Your task to perform on an android device: delete browsing data in the chrome app Image 0: 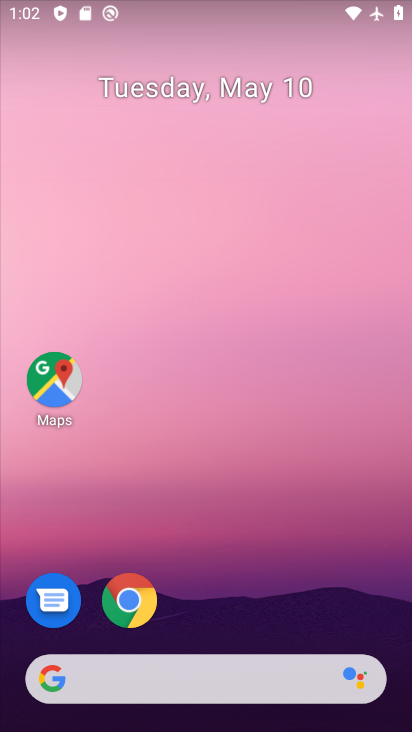
Step 0: click (123, 621)
Your task to perform on an android device: delete browsing data in the chrome app Image 1: 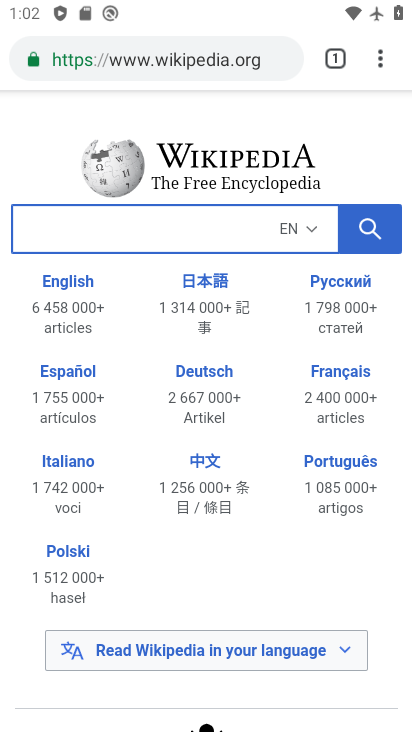
Step 1: click (380, 59)
Your task to perform on an android device: delete browsing data in the chrome app Image 2: 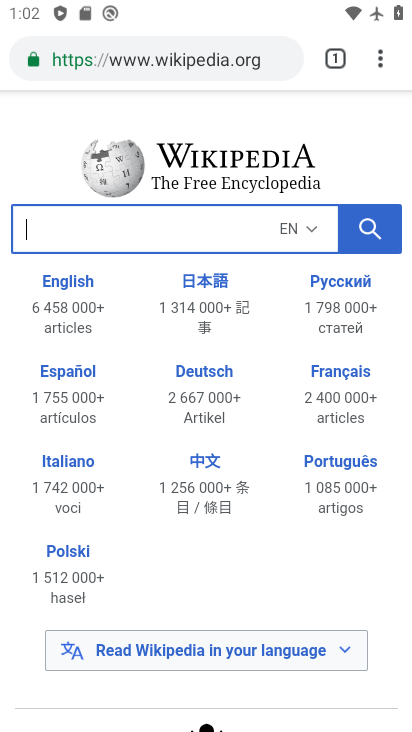
Step 2: click (380, 60)
Your task to perform on an android device: delete browsing data in the chrome app Image 3: 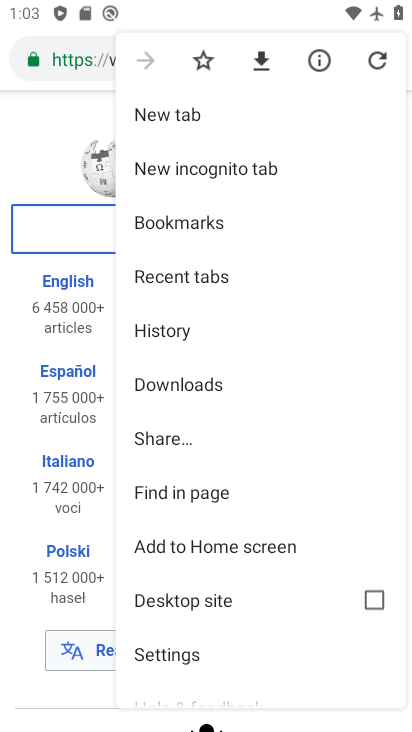
Step 3: click (213, 329)
Your task to perform on an android device: delete browsing data in the chrome app Image 4: 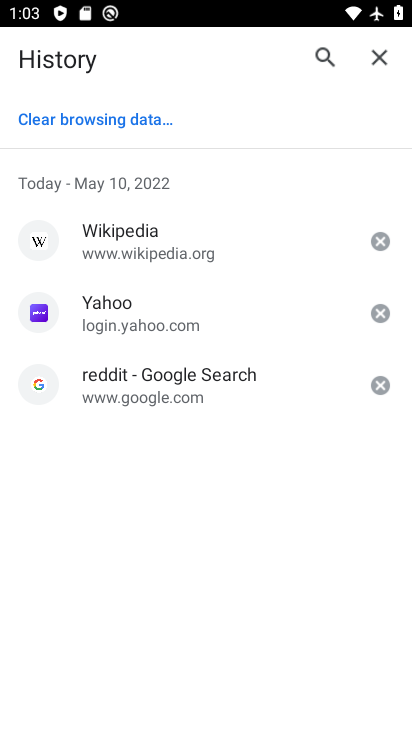
Step 4: click (83, 120)
Your task to perform on an android device: delete browsing data in the chrome app Image 5: 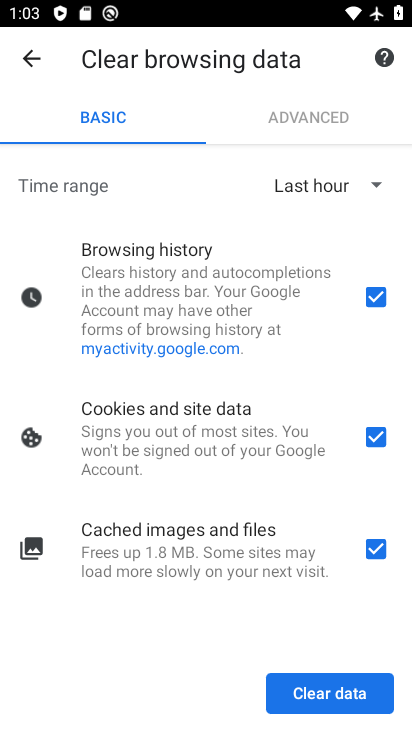
Step 5: click (293, 690)
Your task to perform on an android device: delete browsing data in the chrome app Image 6: 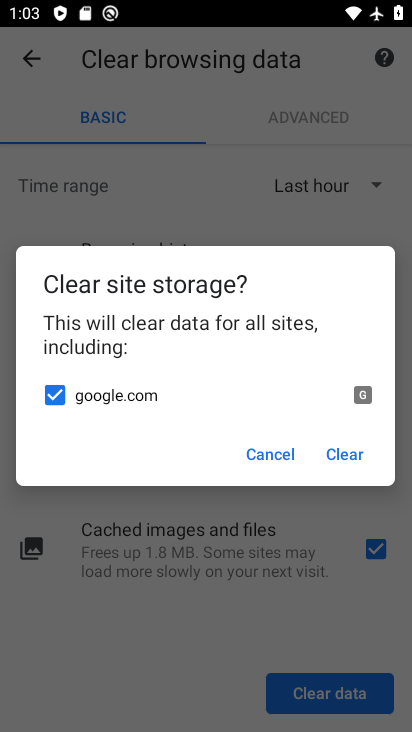
Step 6: click (353, 442)
Your task to perform on an android device: delete browsing data in the chrome app Image 7: 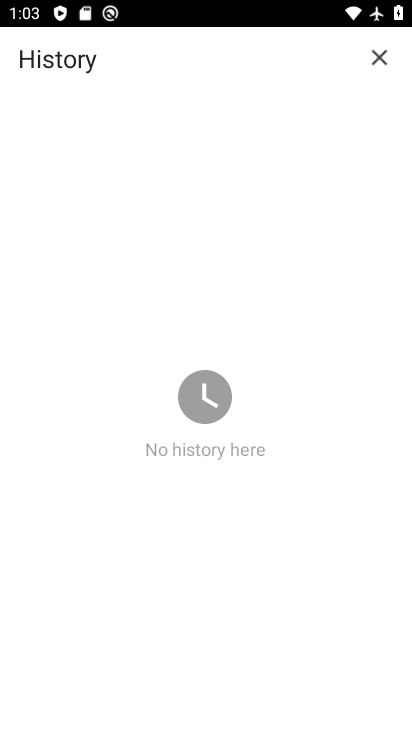
Step 7: task complete